Your task to perform on an android device: turn on the 12-hour format for clock Image 0: 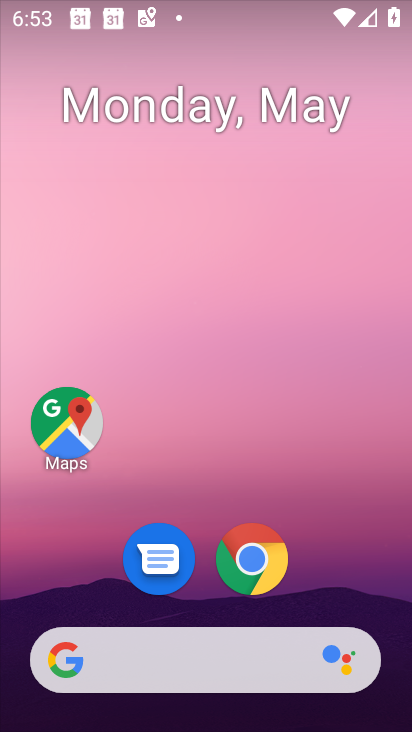
Step 0: drag from (374, 610) to (300, 4)
Your task to perform on an android device: turn on the 12-hour format for clock Image 1: 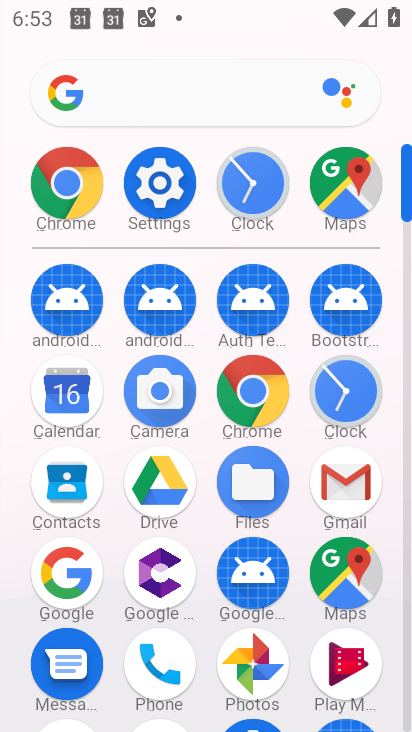
Step 1: click (342, 400)
Your task to perform on an android device: turn on the 12-hour format for clock Image 2: 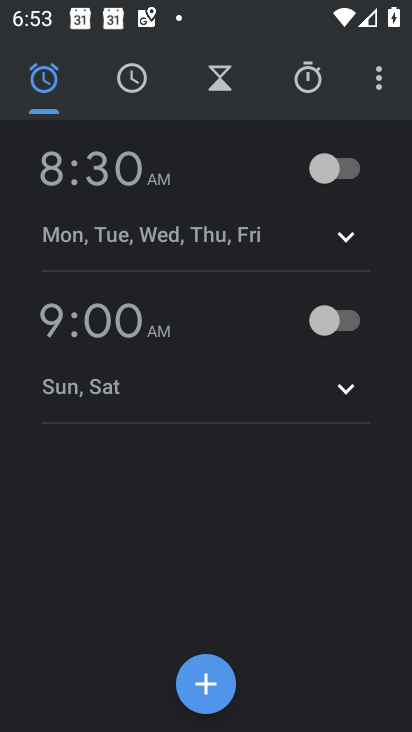
Step 2: click (376, 73)
Your task to perform on an android device: turn on the 12-hour format for clock Image 3: 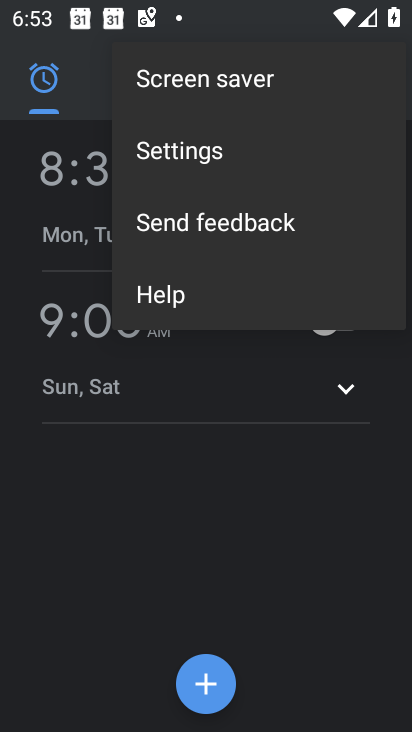
Step 3: click (202, 171)
Your task to perform on an android device: turn on the 12-hour format for clock Image 4: 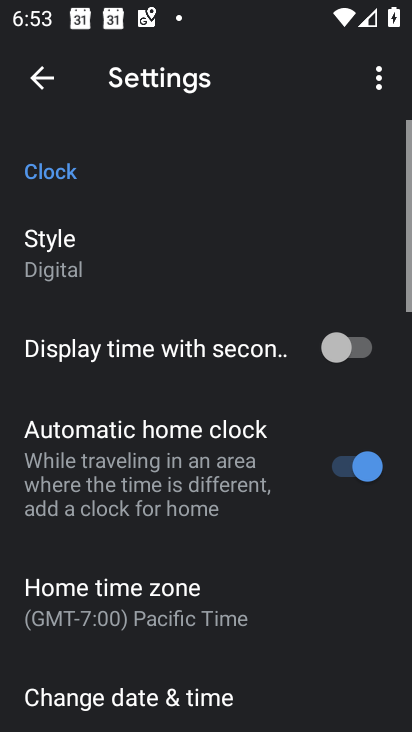
Step 4: click (122, 698)
Your task to perform on an android device: turn on the 12-hour format for clock Image 5: 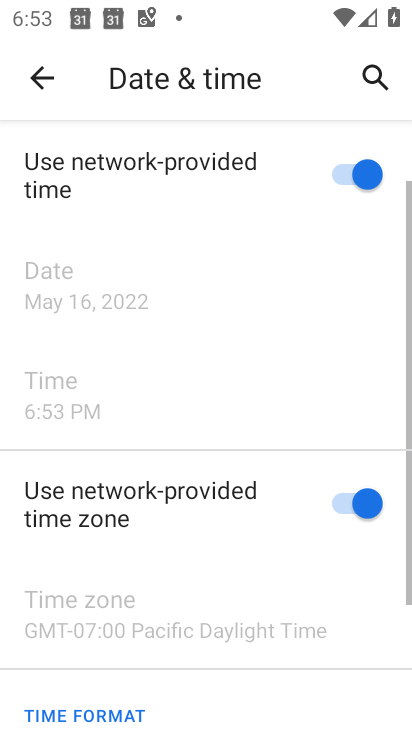
Step 5: task complete